Your task to perform on an android device: turn off data saver in the chrome app Image 0: 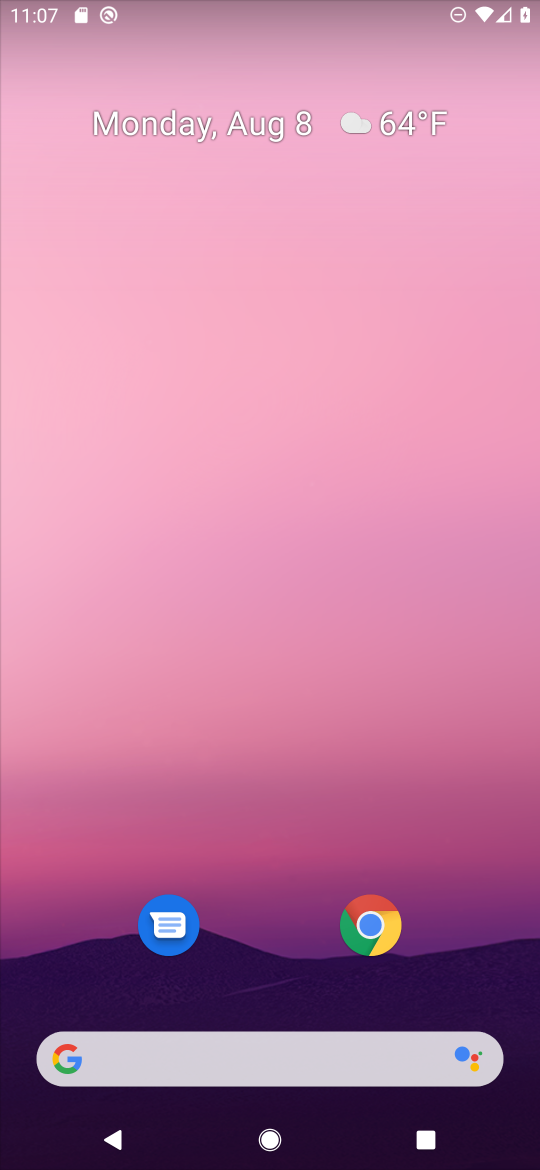
Step 0: drag from (274, 905) to (385, 163)
Your task to perform on an android device: turn off data saver in the chrome app Image 1: 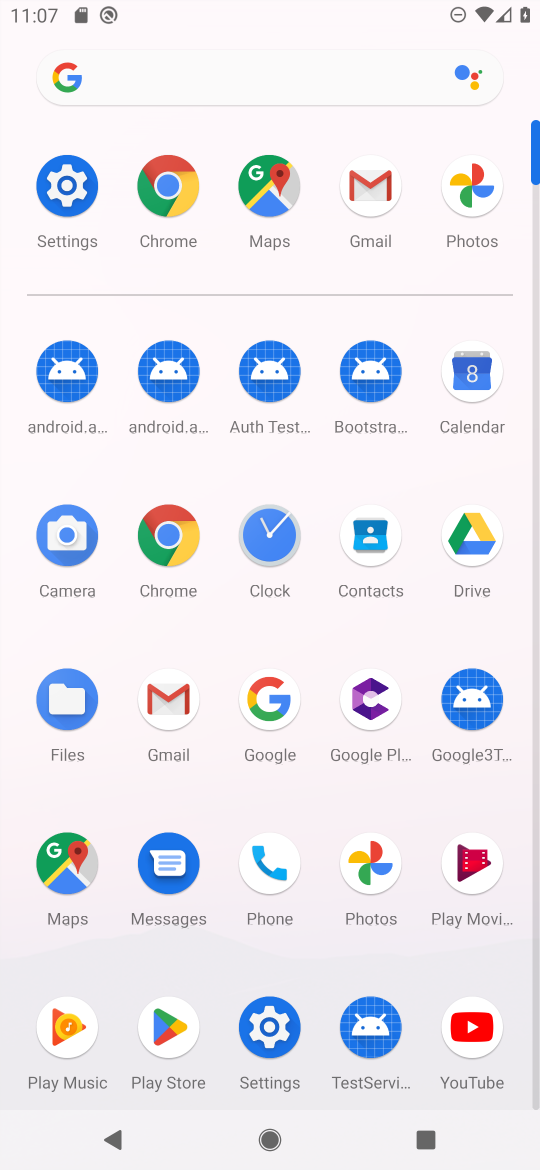
Step 1: click (179, 526)
Your task to perform on an android device: turn off data saver in the chrome app Image 2: 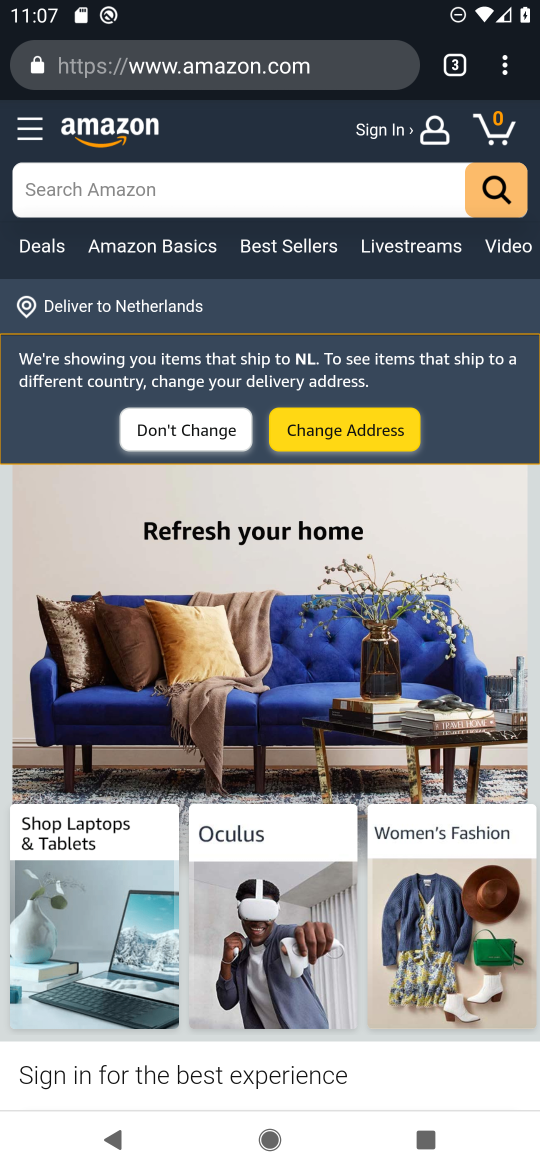
Step 2: drag from (510, 49) to (274, 853)
Your task to perform on an android device: turn off data saver in the chrome app Image 3: 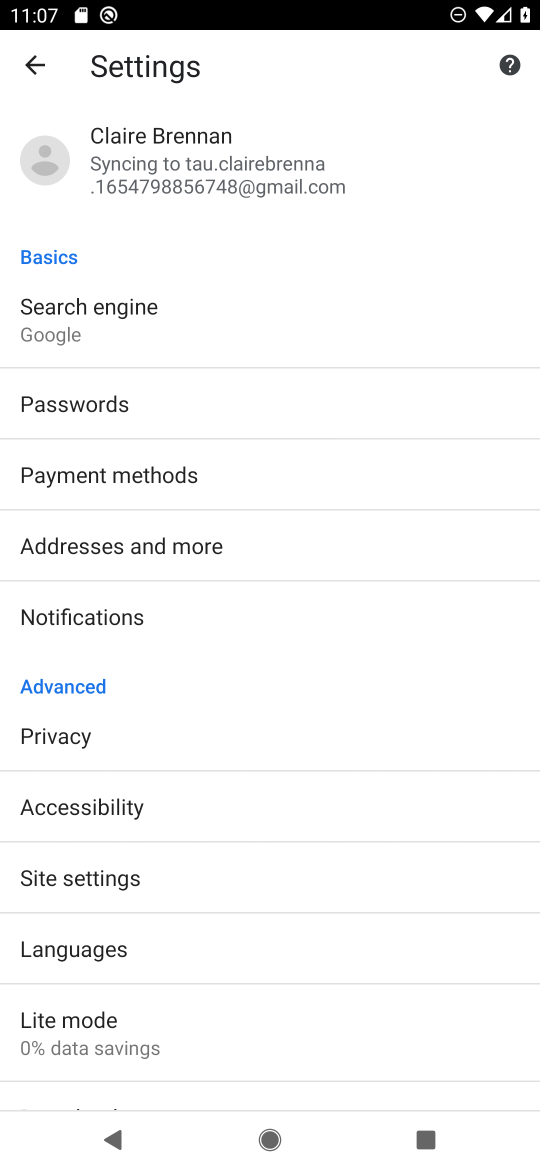
Step 3: drag from (274, 853) to (307, 518)
Your task to perform on an android device: turn off data saver in the chrome app Image 4: 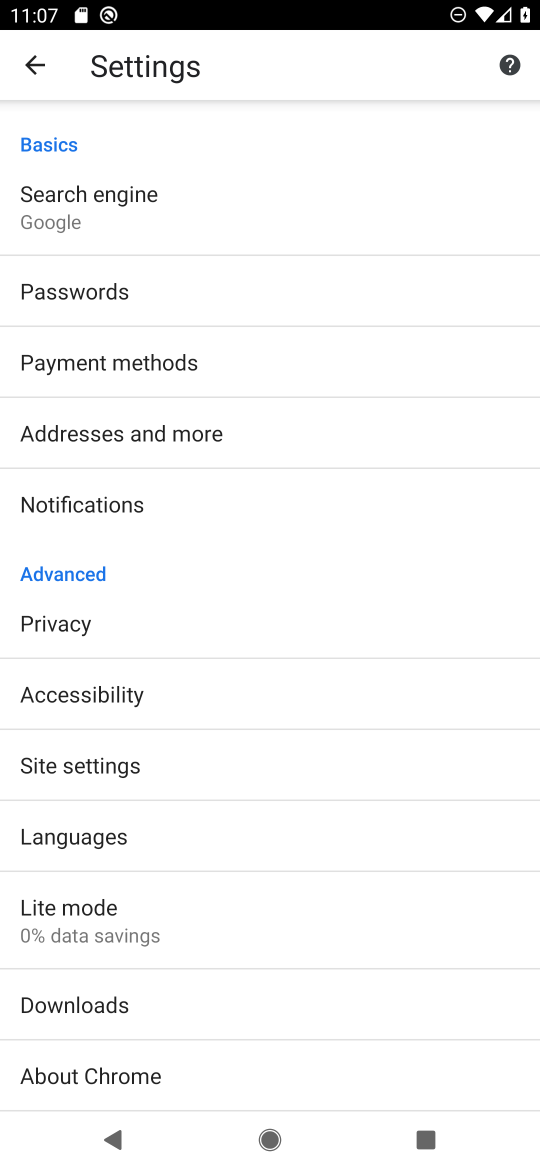
Step 4: click (91, 893)
Your task to perform on an android device: turn off data saver in the chrome app Image 5: 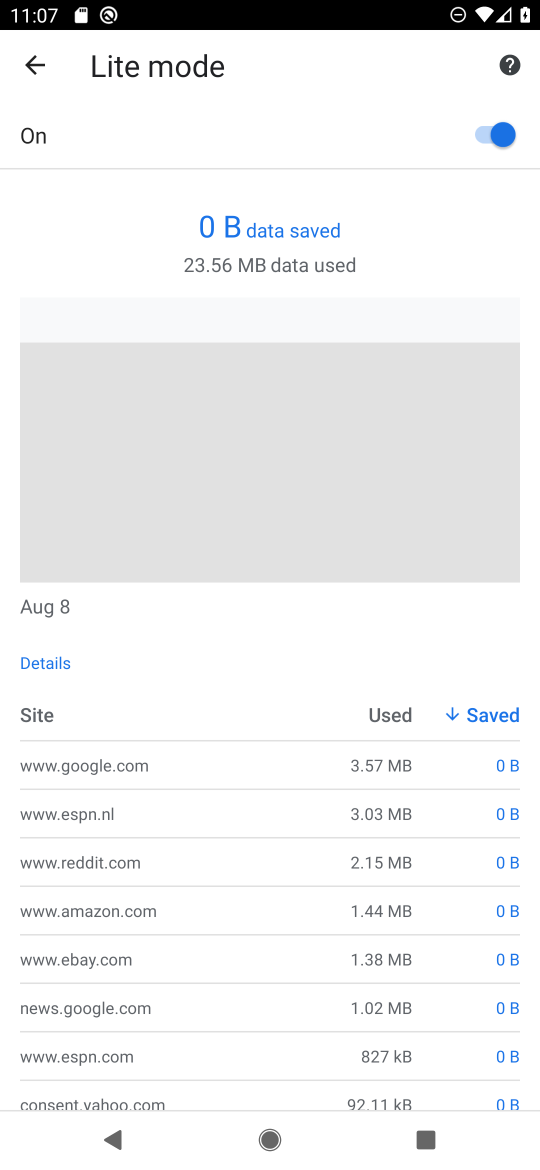
Step 5: click (501, 122)
Your task to perform on an android device: turn off data saver in the chrome app Image 6: 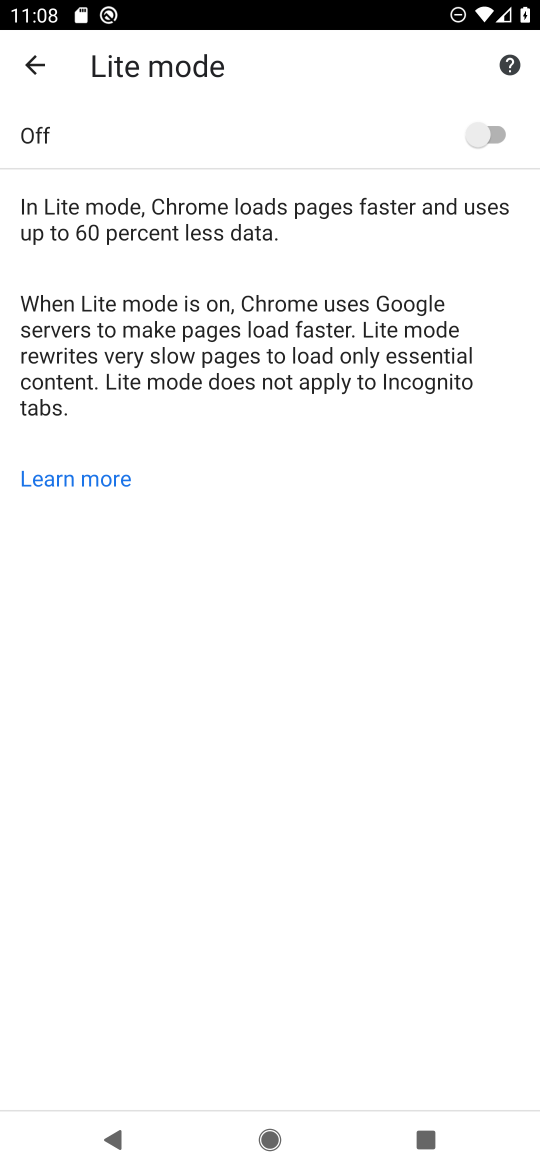
Step 6: task complete